Your task to perform on an android device: Open maps Image 0: 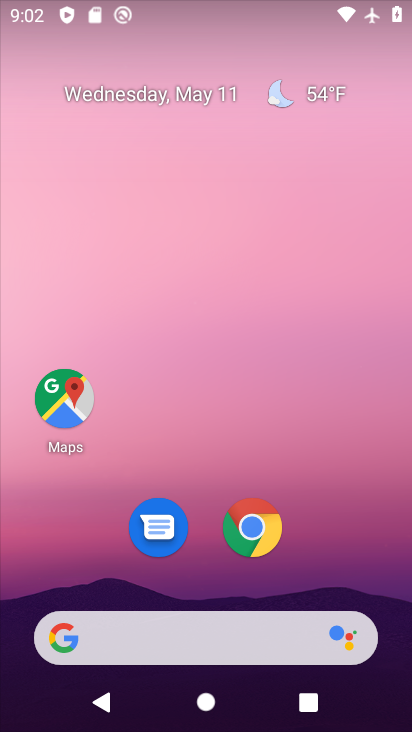
Step 0: click (77, 398)
Your task to perform on an android device: Open maps Image 1: 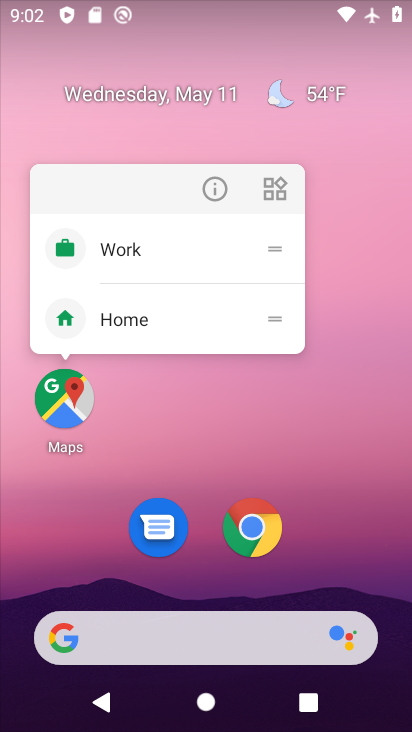
Step 1: click (73, 413)
Your task to perform on an android device: Open maps Image 2: 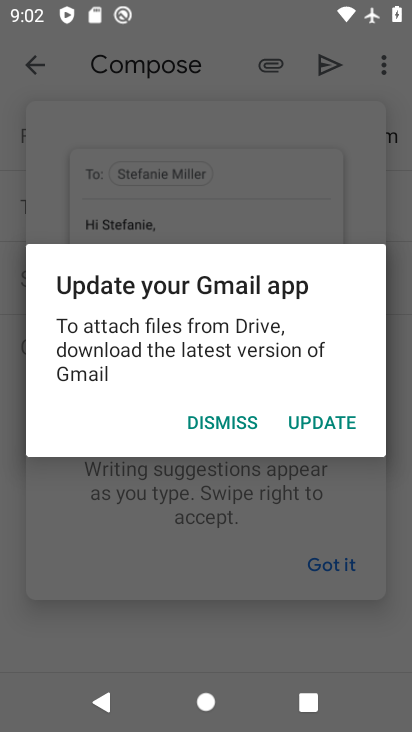
Step 2: press home button
Your task to perform on an android device: Open maps Image 3: 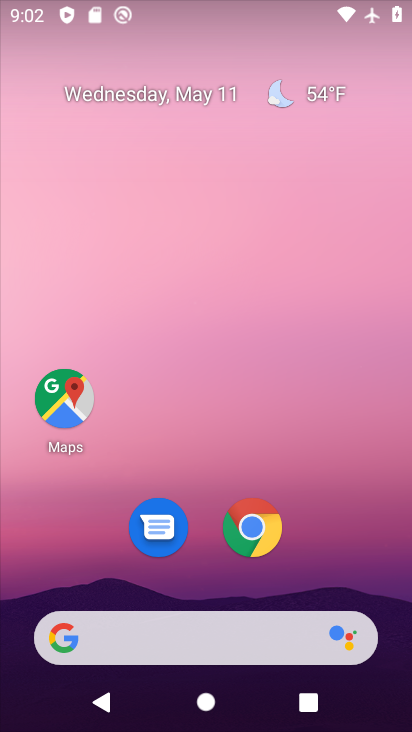
Step 3: click (48, 388)
Your task to perform on an android device: Open maps Image 4: 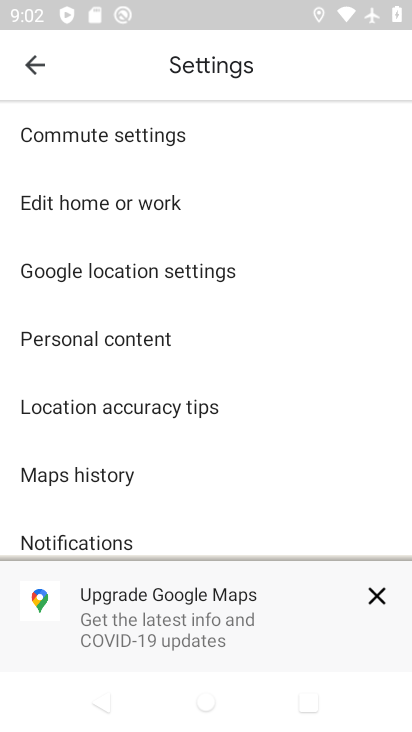
Step 4: task complete